Your task to perform on an android device: Show me productivity apps on the Play Store Image 0: 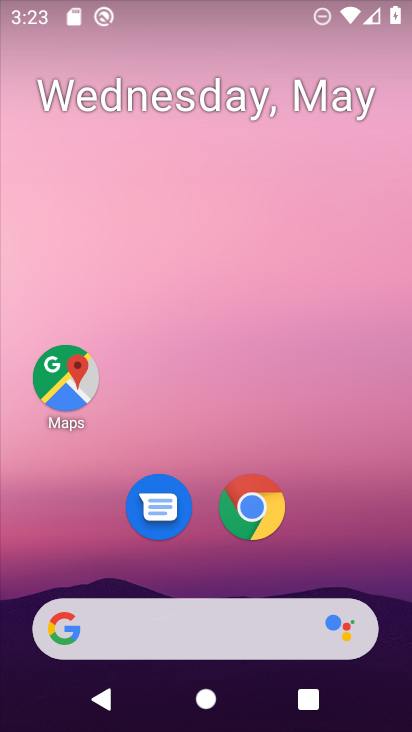
Step 0: drag from (208, 558) to (293, 28)
Your task to perform on an android device: Show me productivity apps on the Play Store Image 1: 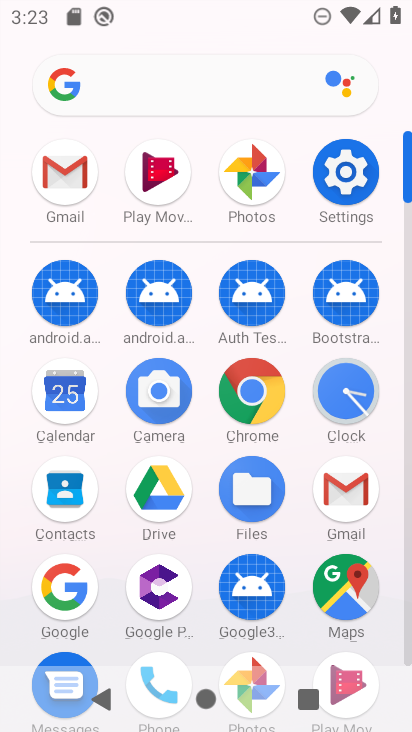
Step 1: drag from (204, 579) to (264, 151)
Your task to perform on an android device: Show me productivity apps on the Play Store Image 2: 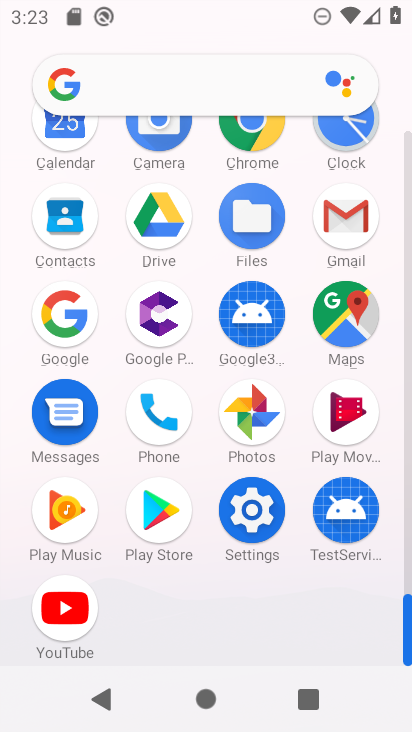
Step 2: click (159, 532)
Your task to perform on an android device: Show me productivity apps on the Play Store Image 3: 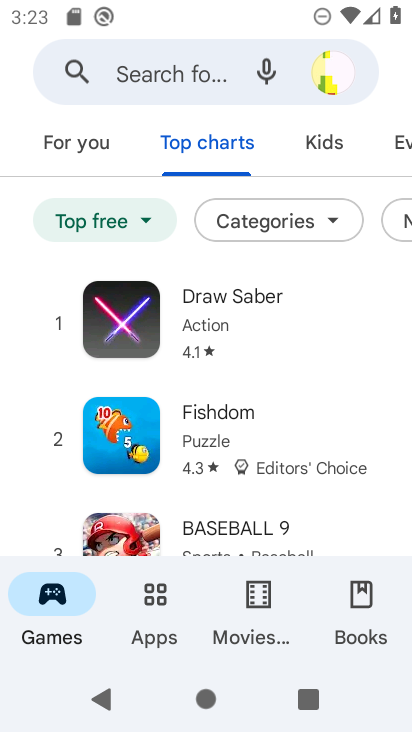
Step 3: click (176, 605)
Your task to perform on an android device: Show me productivity apps on the Play Store Image 4: 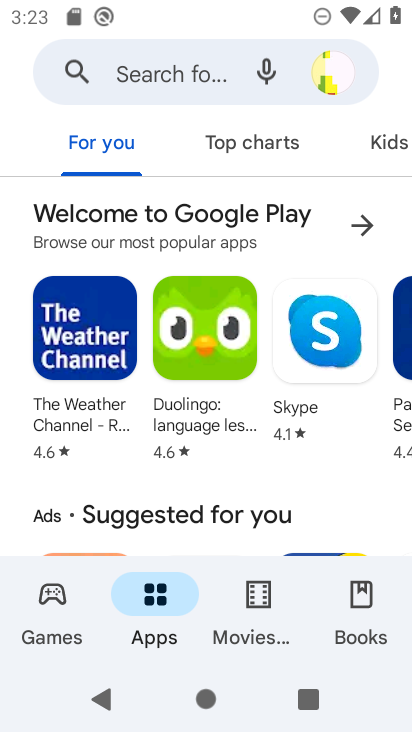
Step 4: drag from (373, 150) to (124, 132)
Your task to perform on an android device: Show me productivity apps on the Play Store Image 5: 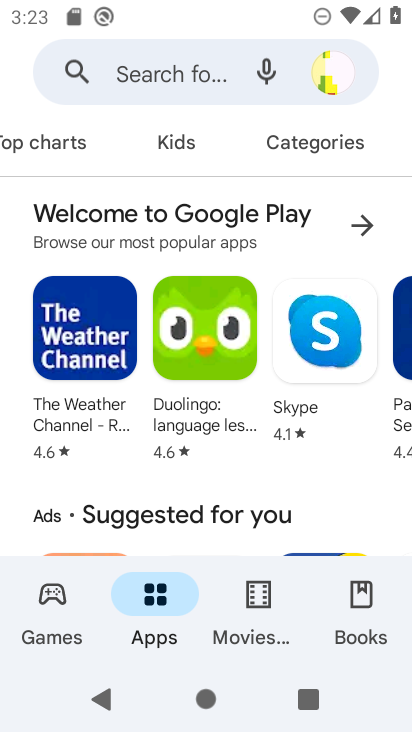
Step 5: click (312, 148)
Your task to perform on an android device: Show me productivity apps on the Play Store Image 6: 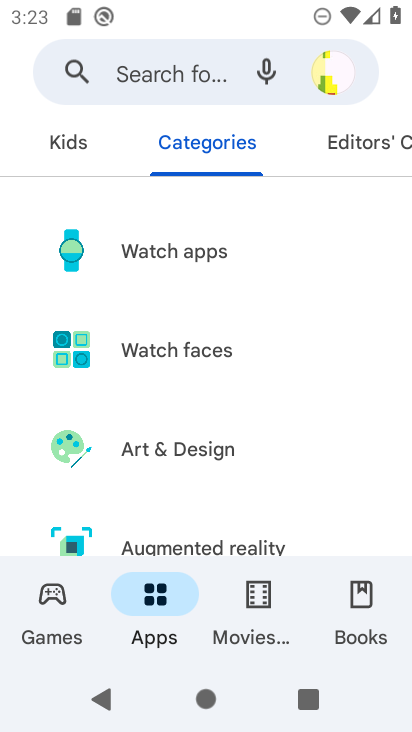
Step 6: drag from (206, 460) to (268, 43)
Your task to perform on an android device: Show me productivity apps on the Play Store Image 7: 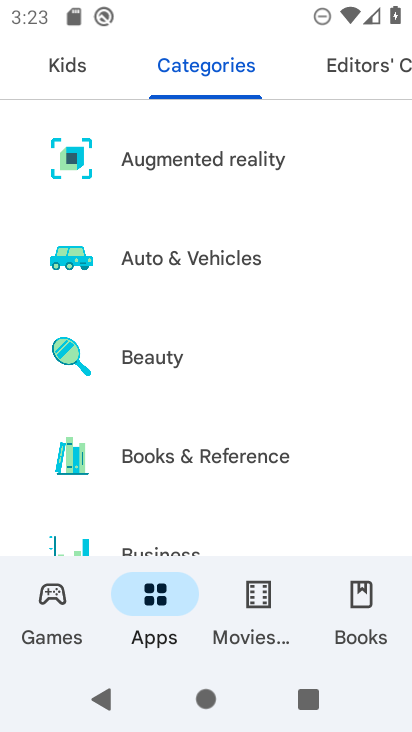
Step 7: drag from (235, 488) to (239, 59)
Your task to perform on an android device: Show me productivity apps on the Play Store Image 8: 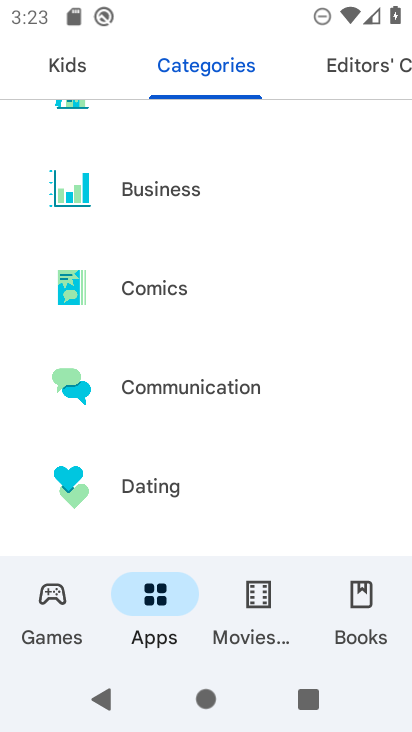
Step 8: drag from (179, 481) to (244, 61)
Your task to perform on an android device: Show me productivity apps on the Play Store Image 9: 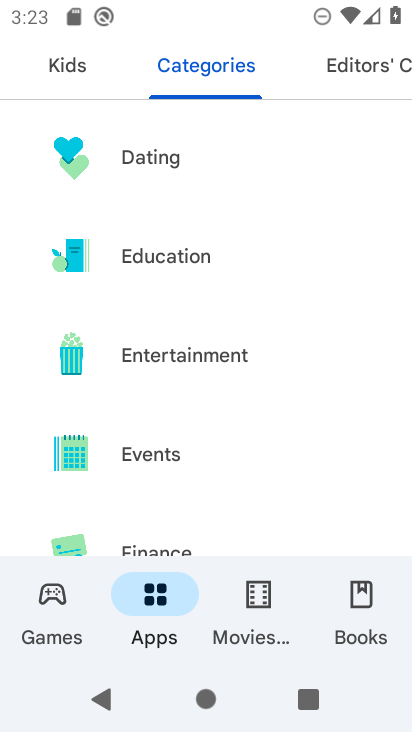
Step 9: drag from (222, 452) to (273, 66)
Your task to perform on an android device: Show me productivity apps on the Play Store Image 10: 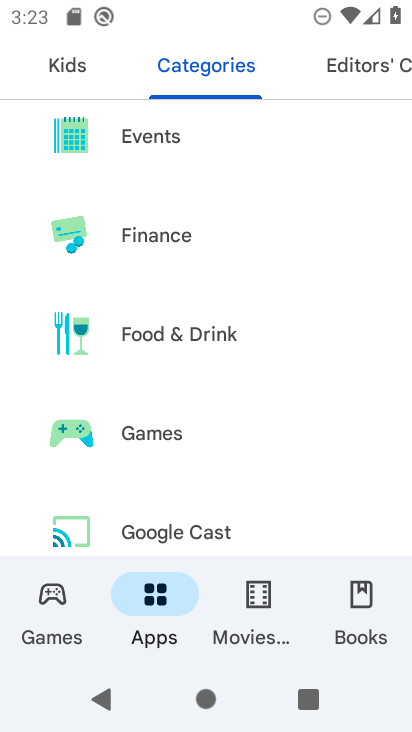
Step 10: drag from (273, 525) to (320, 70)
Your task to perform on an android device: Show me productivity apps on the Play Store Image 11: 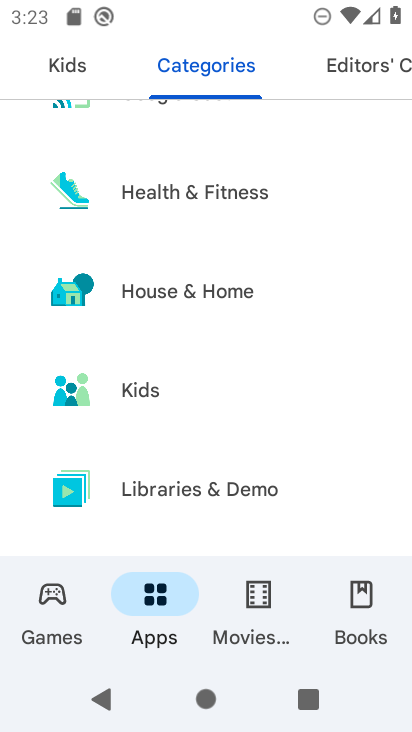
Step 11: drag from (241, 461) to (283, 82)
Your task to perform on an android device: Show me productivity apps on the Play Store Image 12: 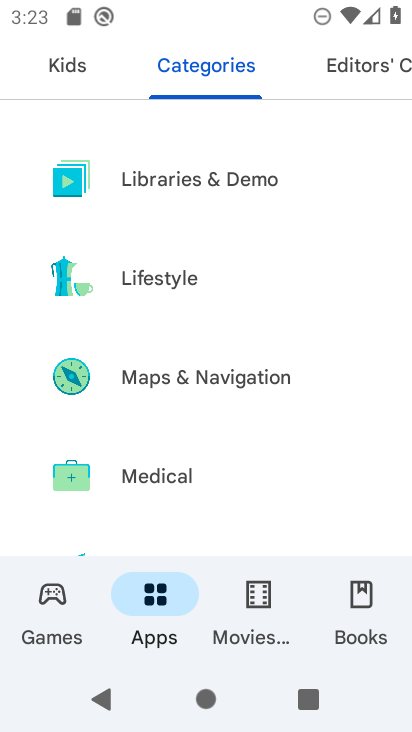
Step 12: drag from (225, 433) to (292, 88)
Your task to perform on an android device: Show me productivity apps on the Play Store Image 13: 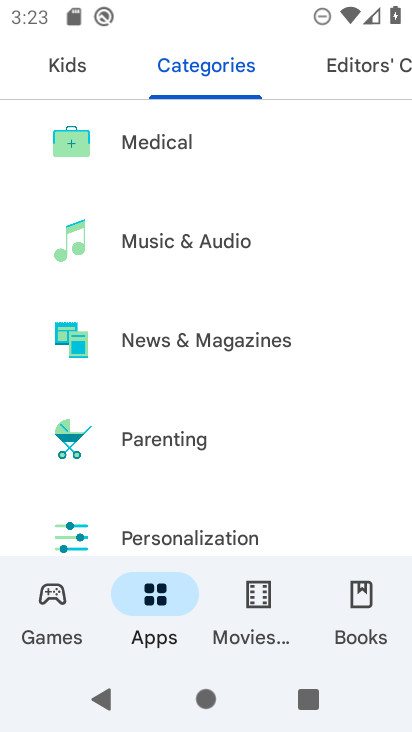
Step 13: drag from (263, 480) to (275, 132)
Your task to perform on an android device: Show me productivity apps on the Play Store Image 14: 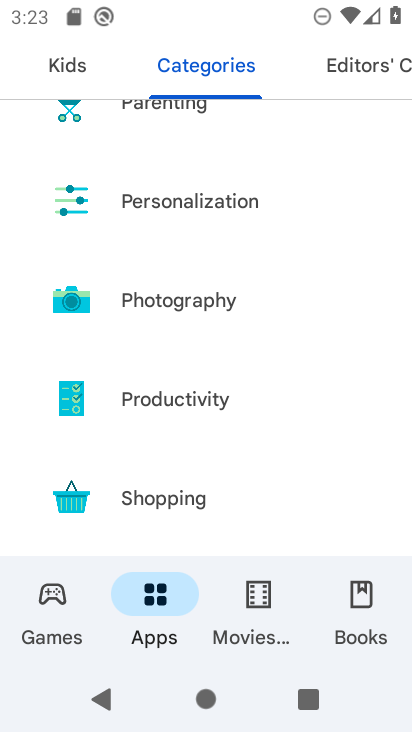
Step 14: click (216, 414)
Your task to perform on an android device: Show me productivity apps on the Play Store Image 15: 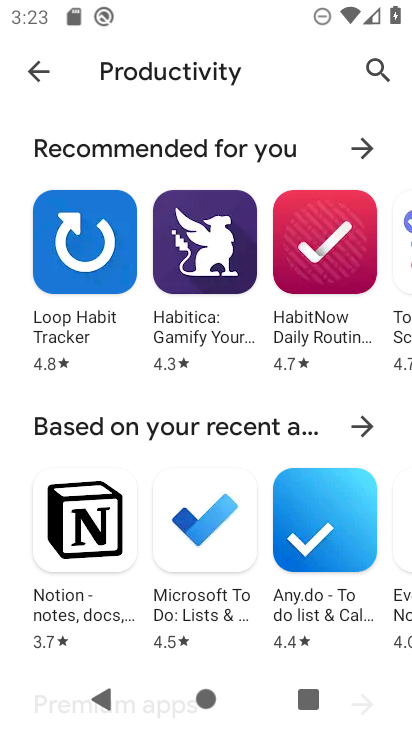
Step 15: task complete